Your task to perform on an android device: Open network settings Image 0: 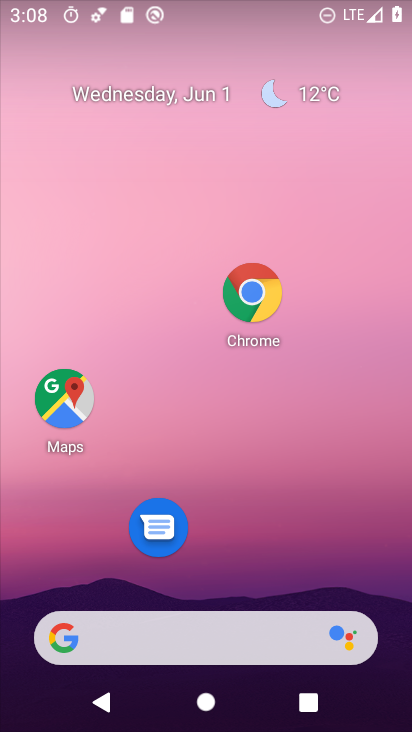
Step 0: drag from (242, 504) to (263, 354)
Your task to perform on an android device: Open network settings Image 1: 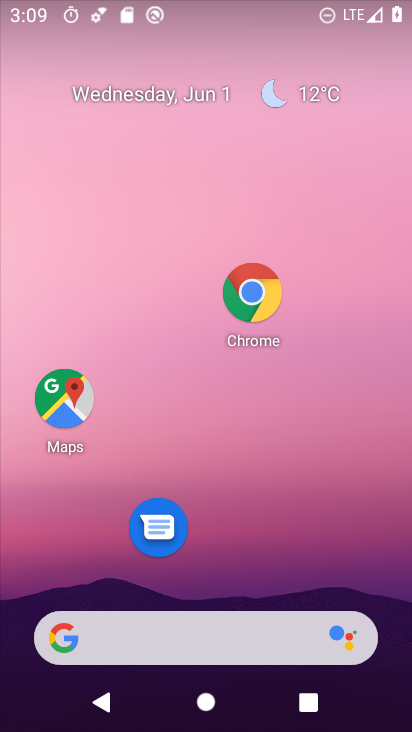
Step 1: click (228, 166)
Your task to perform on an android device: Open network settings Image 2: 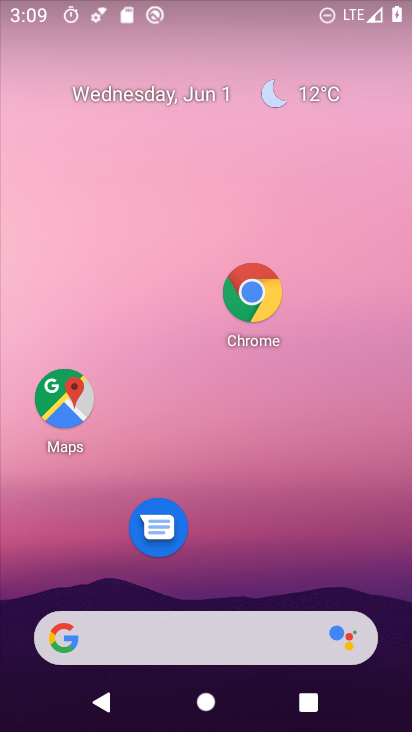
Step 2: drag from (230, 573) to (277, 85)
Your task to perform on an android device: Open network settings Image 3: 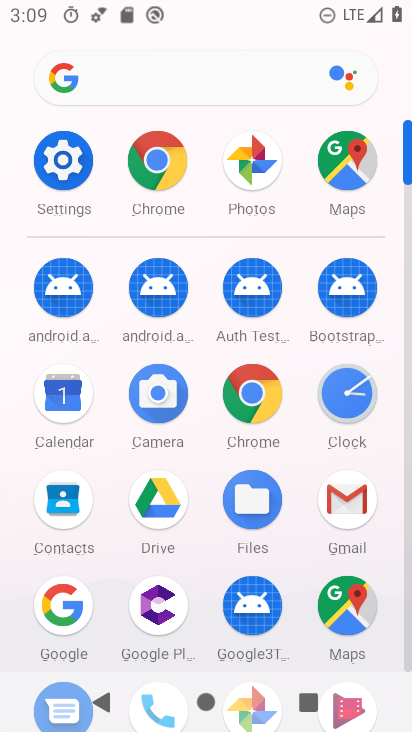
Step 3: click (72, 181)
Your task to perform on an android device: Open network settings Image 4: 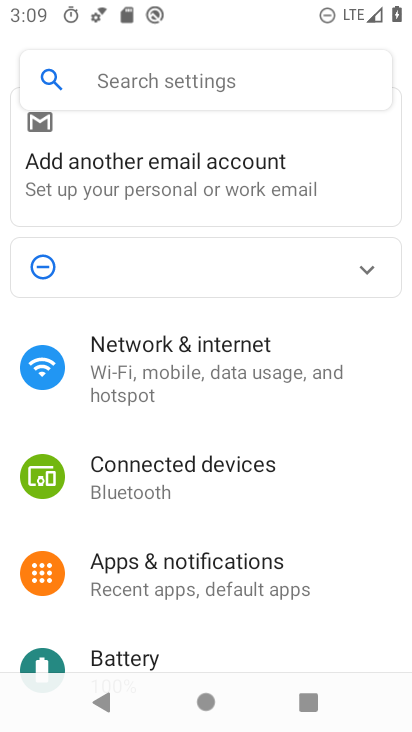
Step 4: click (200, 370)
Your task to perform on an android device: Open network settings Image 5: 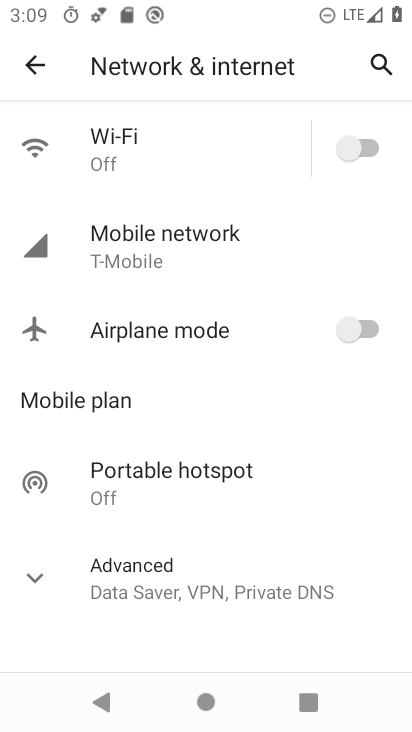
Step 5: click (175, 251)
Your task to perform on an android device: Open network settings Image 6: 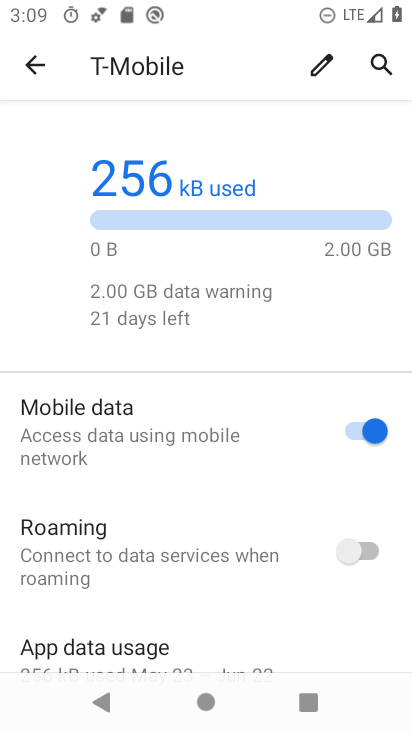
Step 6: task complete